Your task to perform on an android device: toggle notification dots Image 0: 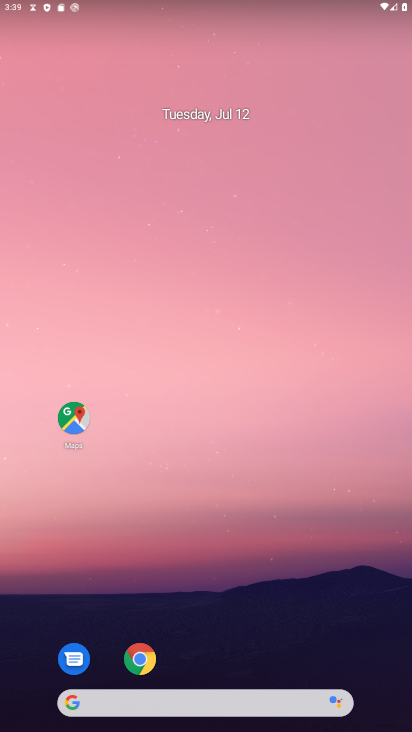
Step 0: press home button
Your task to perform on an android device: toggle notification dots Image 1: 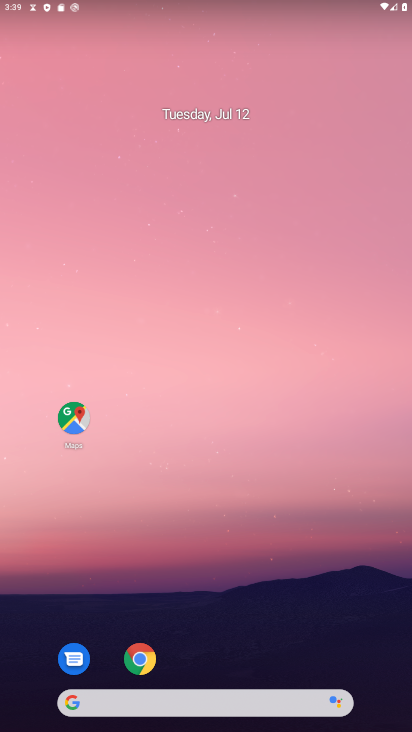
Step 1: drag from (230, 613) to (316, 13)
Your task to perform on an android device: toggle notification dots Image 2: 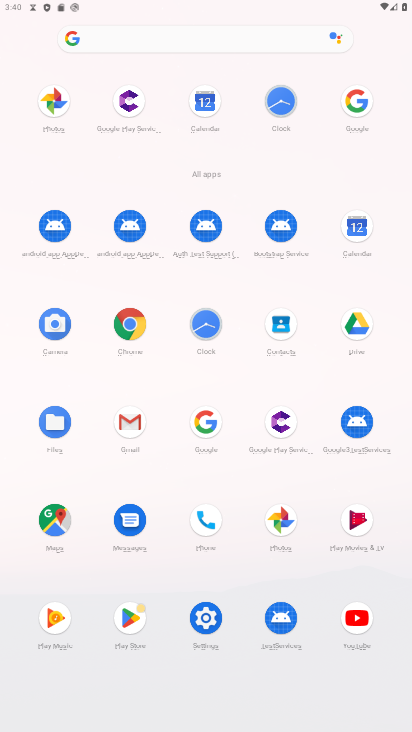
Step 2: click (203, 612)
Your task to perform on an android device: toggle notification dots Image 3: 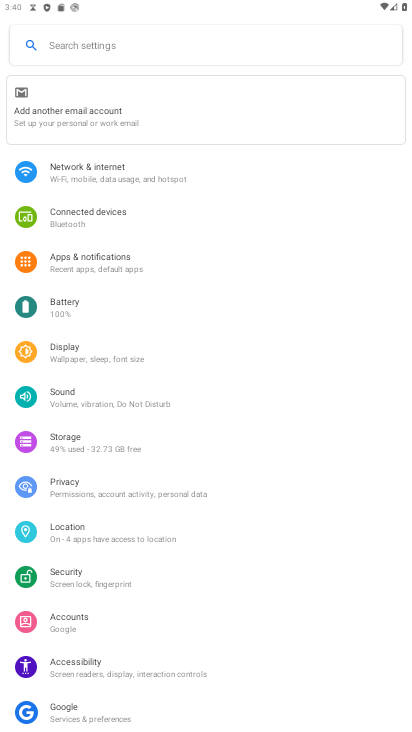
Step 3: click (102, 270)
Your task to perform on an android device: toggle notification dots Image 4: 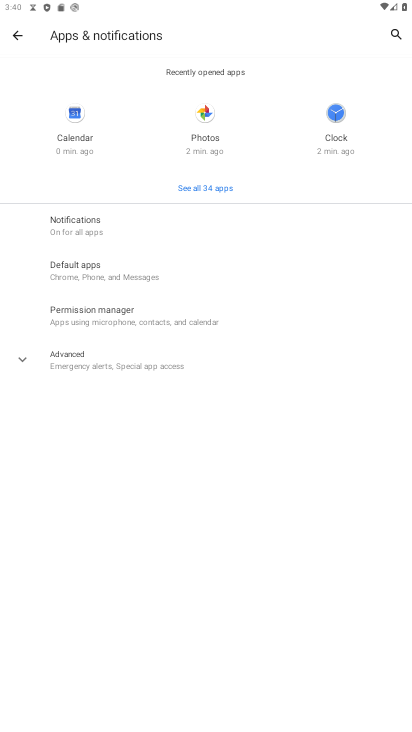
Step 4: click (86, 217)
Your task to perform on an android device: toggle notification dots Image 5: 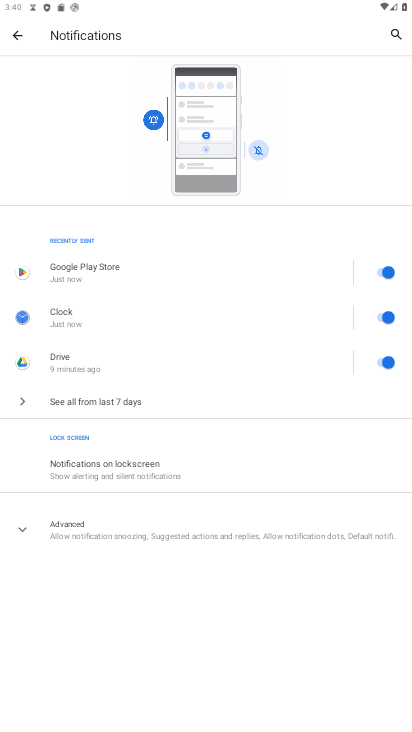
Step 5: click (31, 538)
Your task to perform on an android device: toggle notification dots Image 6: 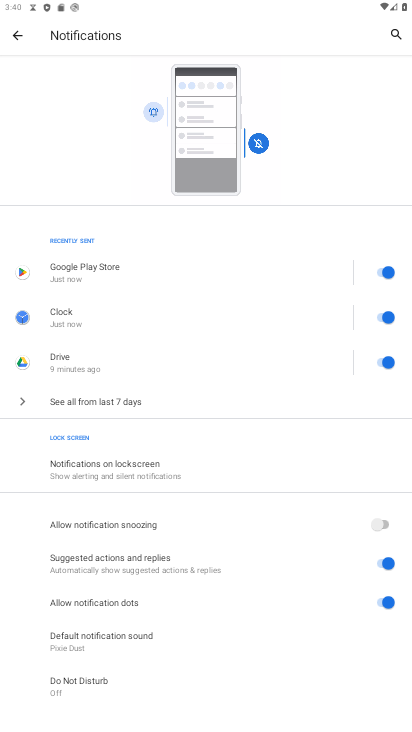
Step 6: click (387, 595)
Your task to perform on an android device: toggle notification dots Image 7: 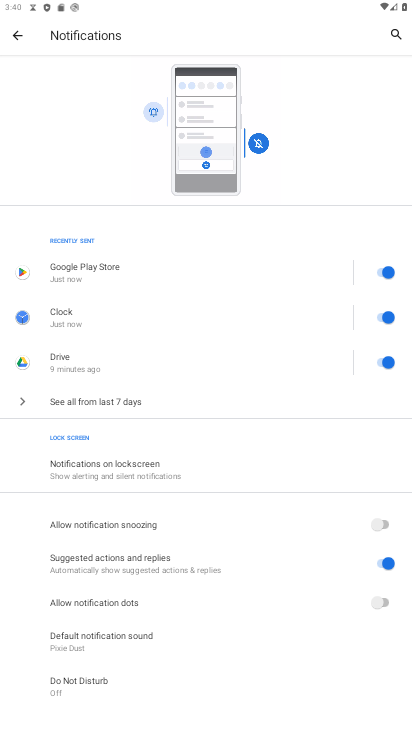
Step 7: task complete